Your task to perform on an android device: turn on the 12-hour format for clock Image 0: 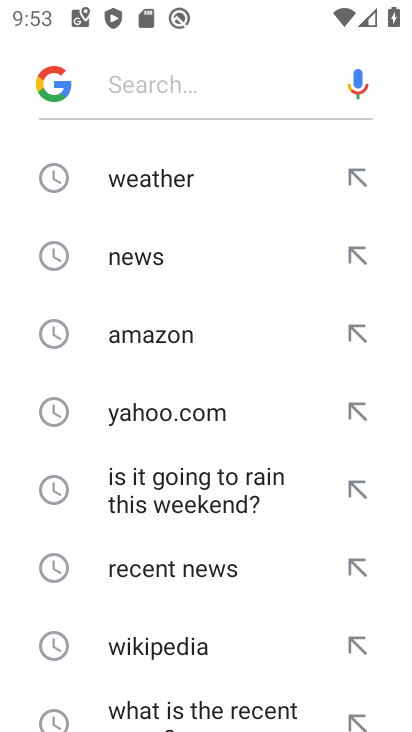
Step 0: press home button
Your task to perform on an android device: turn on the 12-hour format for clock Image 1: 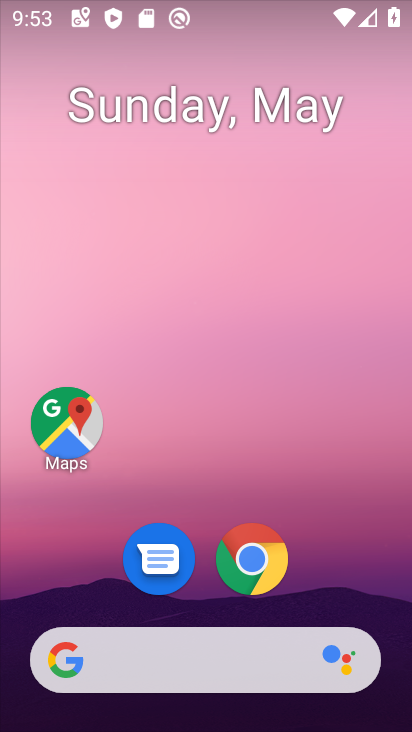
Step 1: drag from (321, 577) to (302, 211)
Your task to perform on an android device: turn on the 12-hour format for clock Image 2: 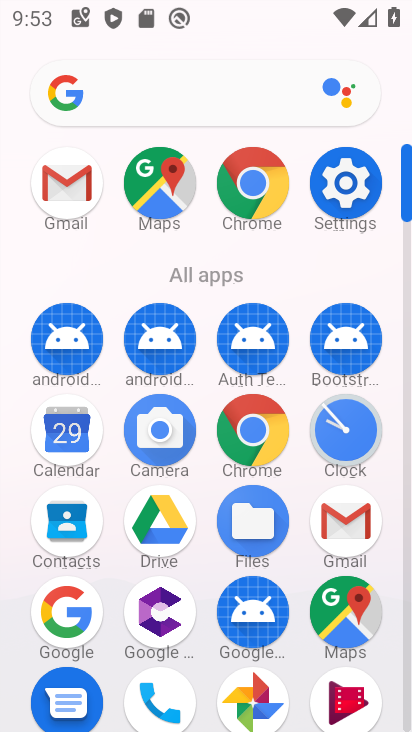
Step 2: drag from (392, 641) to (353, 191)
Your task to perform on an android device: turn on the 12-hour format for clock Image 3: 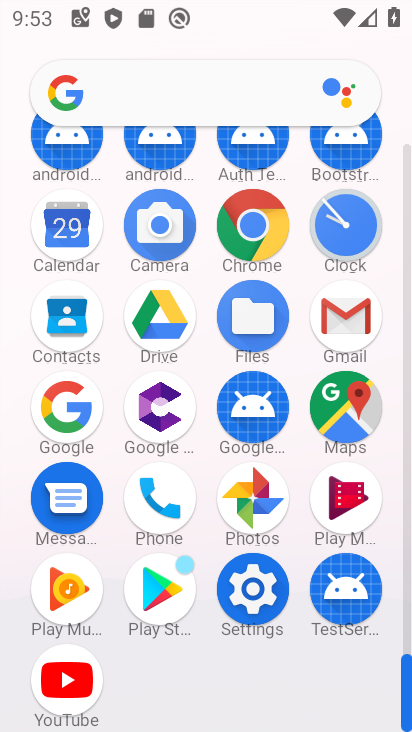
Step 3: click (256, 585)
Your task to perform on an android device: turn on the 12-hour format for clock Image 4: 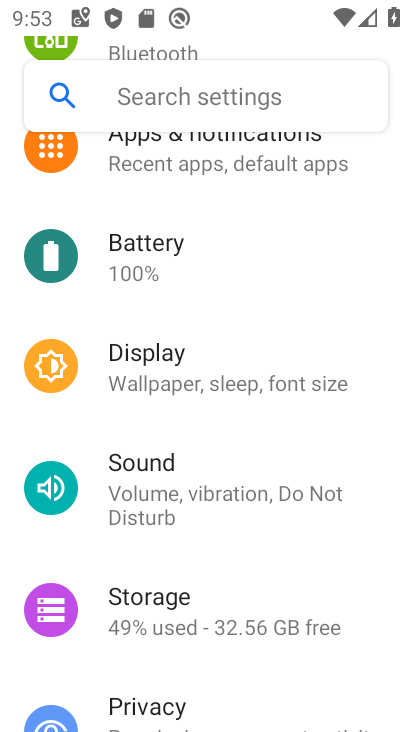
Step 4: drag from (300, 662) to (293, 234)
Your task to perform on an android device: turn on the 12-hour format for clock Image 5: 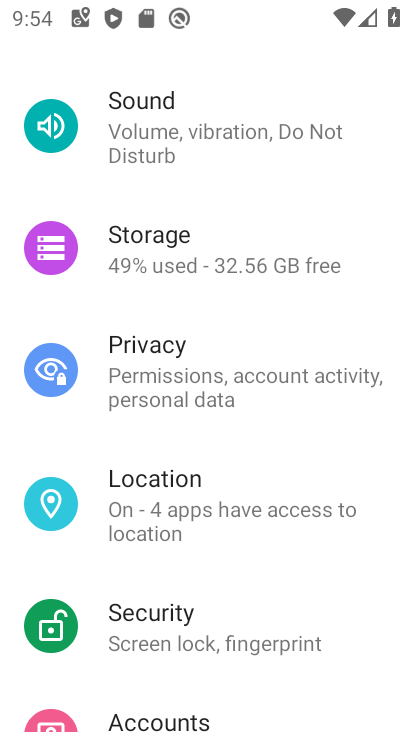
Step 5: drag from (361, 694) to (350, 186)
Your task to perform on an android device: turn on the 12-hour format for clock Image 6: 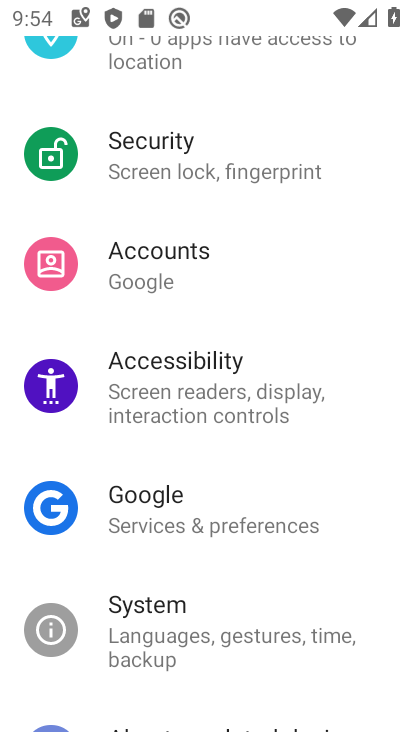
Step 6: click (138, 627)
Your task to perform on an android device: turn on the 12-hour format for clock Image 7: 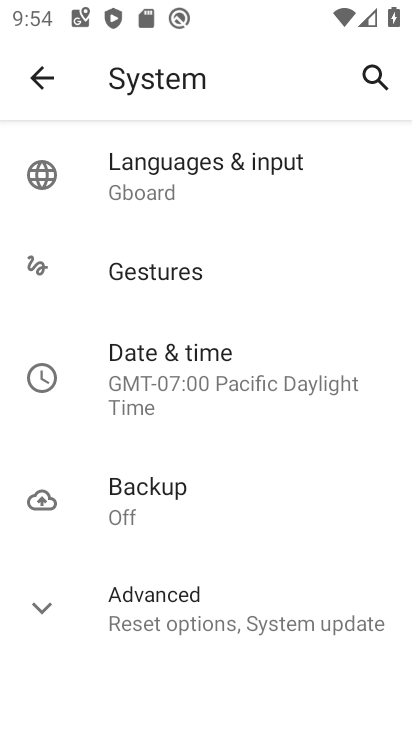
Step 7: click (172, 359)
Your task to perform on an android device: turn on the 12-hour format for clock Image 8: 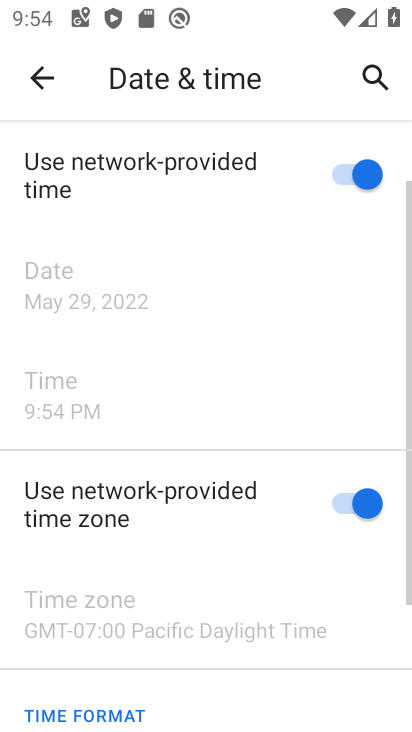
Step 8: drag from (276, 537) to (264, 224)
Your task to perform on an android device: turn on the 12-hour format for clock Image 9: 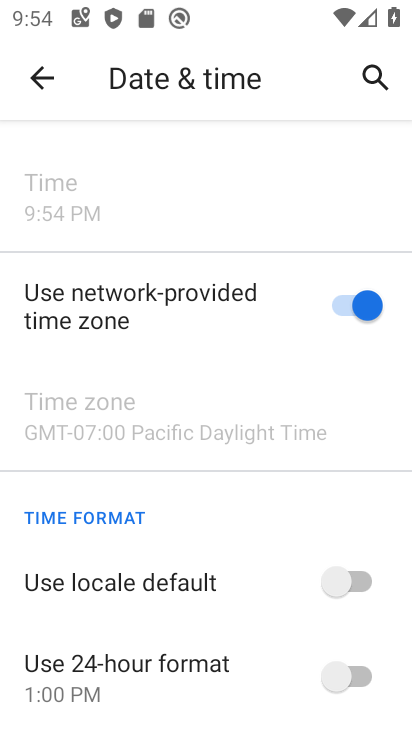
Step 9: click (335, 672)
Your task to perform on an android device: turn on the 12-hour format for clock Image 10: 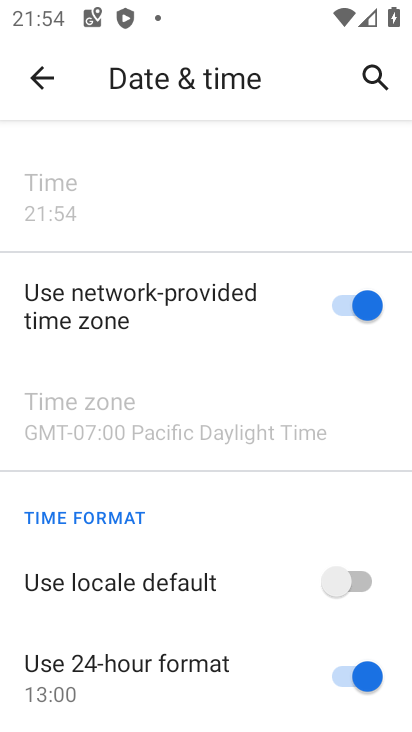
Step 10: click (372, 679)
Your task to perform on an android device: turn on the 12-hour format for clock Image 11: 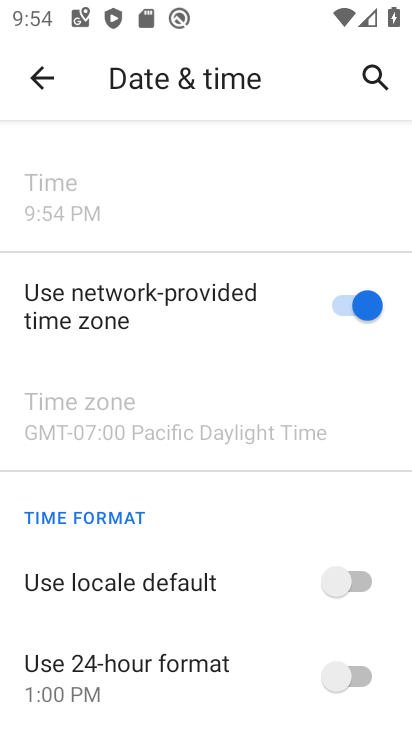
Step 11: task complete